Your task to perform on an android device: Search for vegetarian restaurants on Maps Image 0: 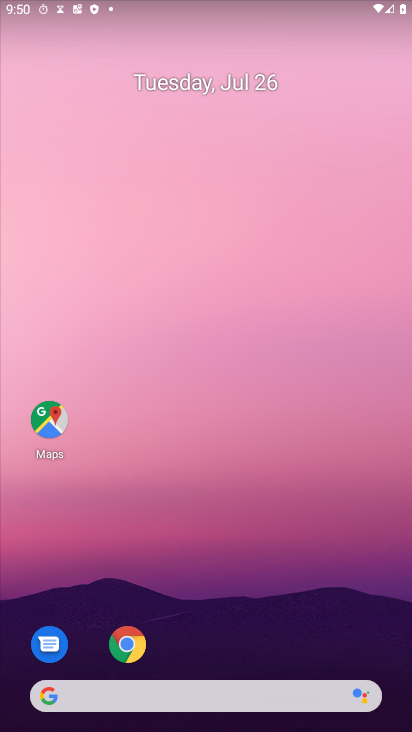
Step 0: click (57, 432)
Your task to perform on an android device: Search for vegetarian restaurants on Maps Image 1: 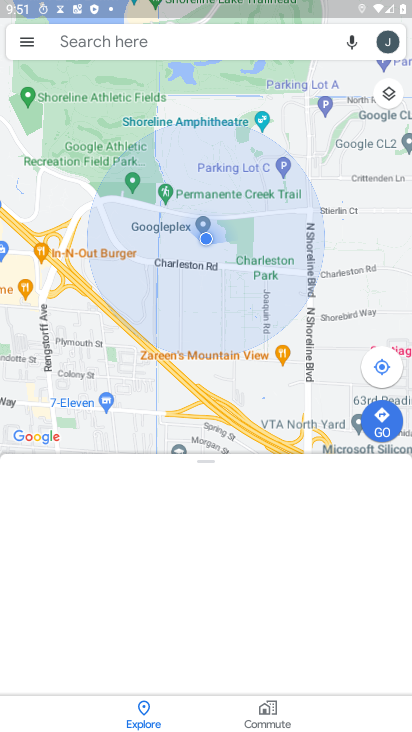
Step 1: click (126, 41)
Your task to perform on an android device: Search for vegetarian restaurants on Maps Image 2: 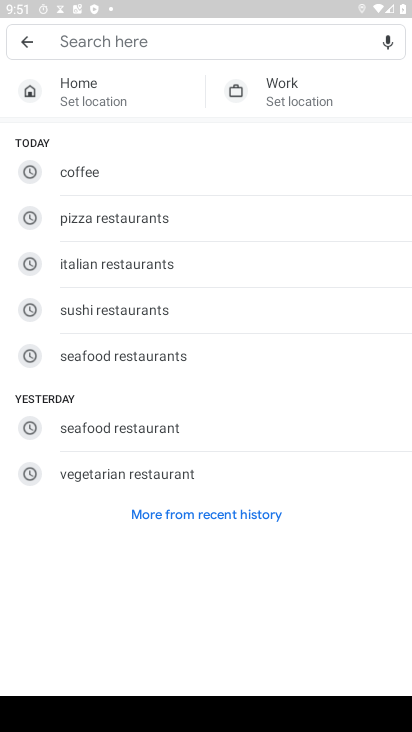
Step 2: type "vegetarian restaurants"
Your task to perform on an android device: Search for vegetarian restaurants on Maps Image 3: 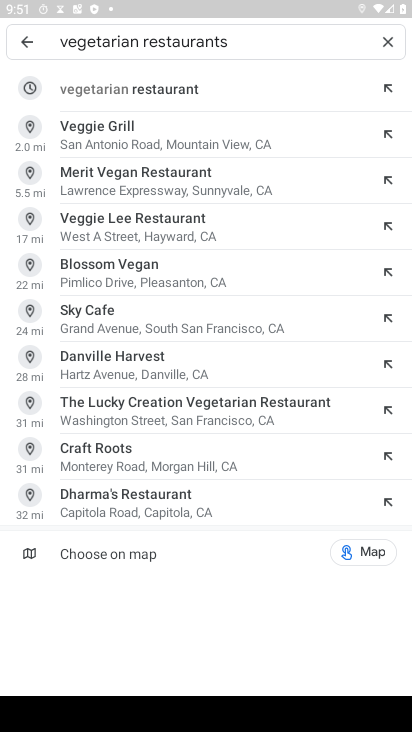
Step 3: click (181, 87)
Your task to perform on an android device: Search for vegetarian restaurants on Maps Image 4: 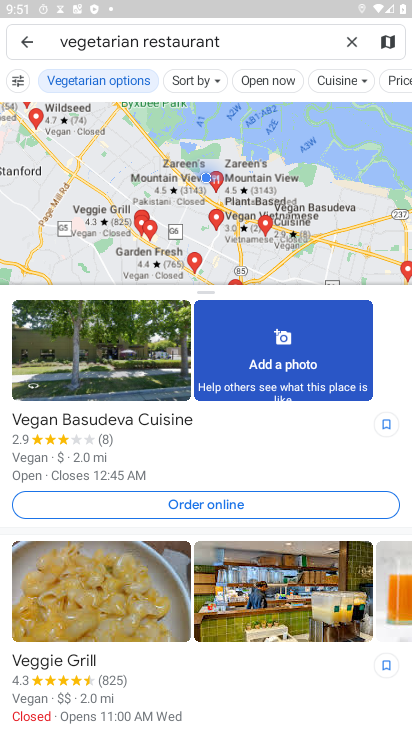
Step 4: task complete